Your task to perform on an android device: set the timer Image 0: 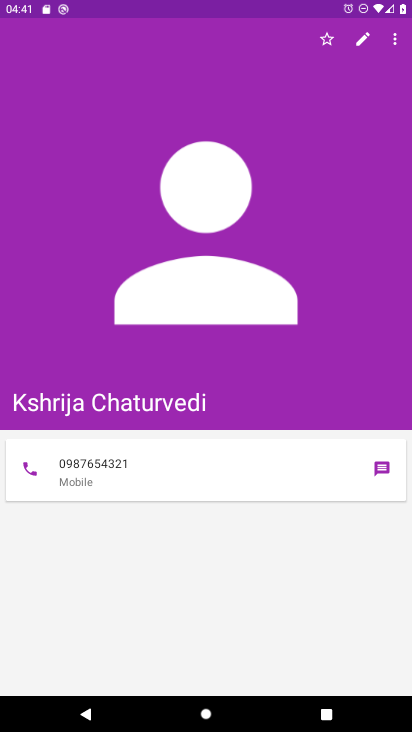
Step 0: press back button
Your task to perform on an android device: set the timer Image 1: 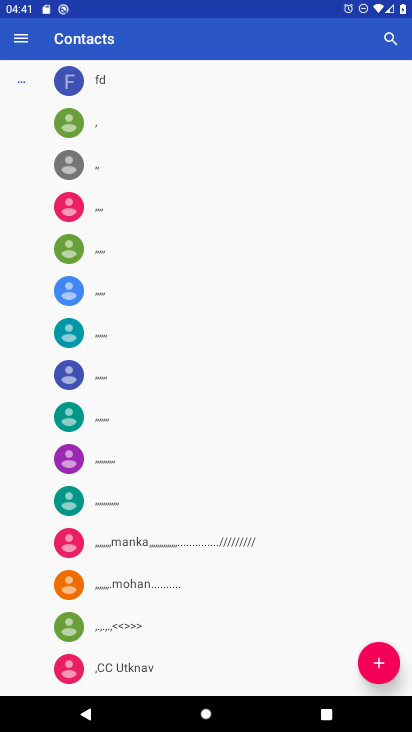
Step 1: press back button
Your task to perform on an android device: set the timer Image 2: 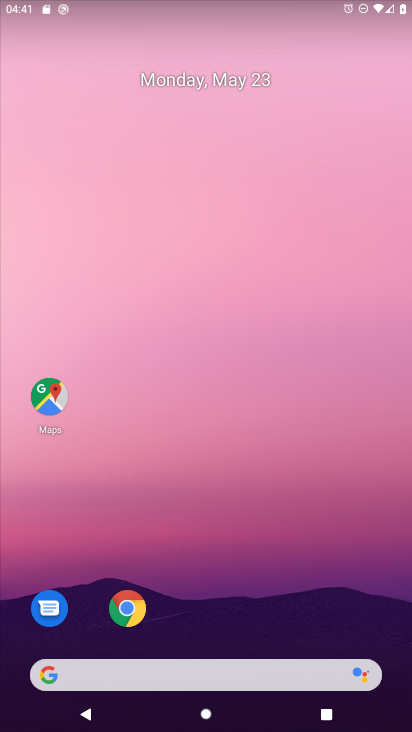
Step 2: drag from (206, 622) to (182, 226)
Your task to perform on an android device: set the timer Image 3: 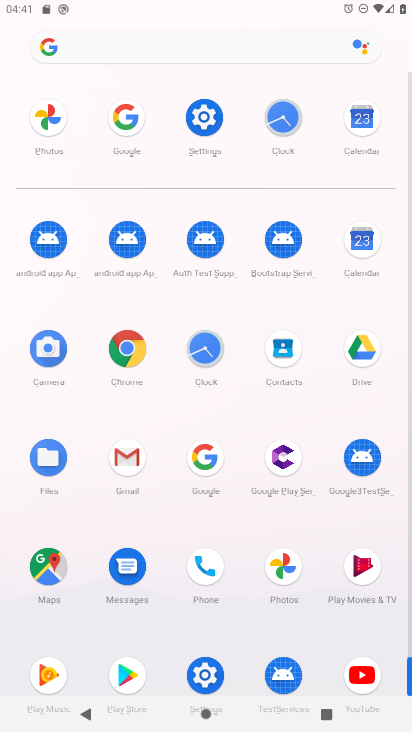
Step 3: click (279, 119)
Your task to perform on an android device: set the timer Image 4: 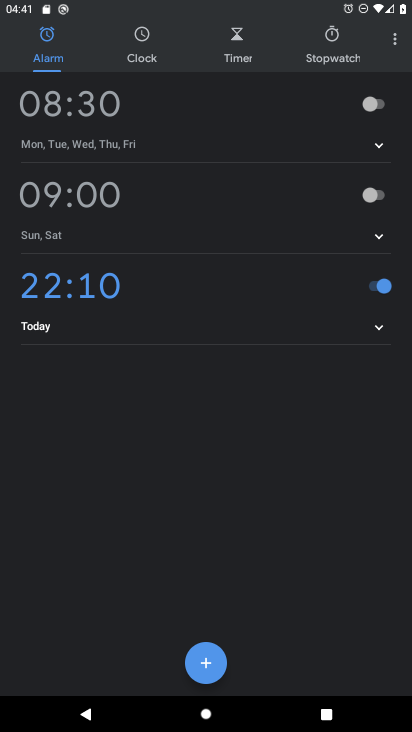
Step 4: click (238, 46)
Your task to perform on an android device: set the timer Image 5: 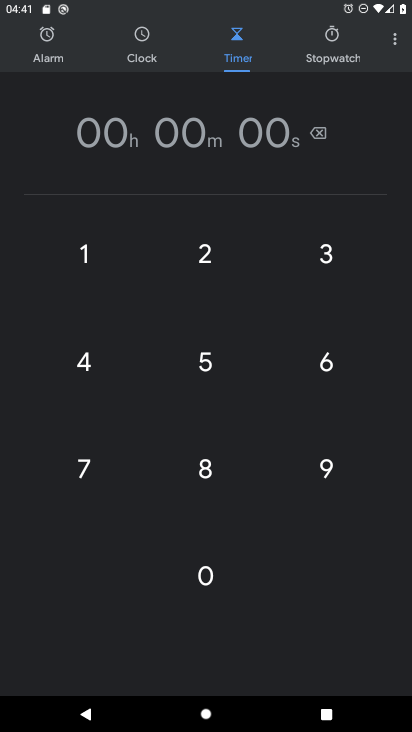
Step 5: type "123"
Your task to perform on an android device: set the timer Image 6: 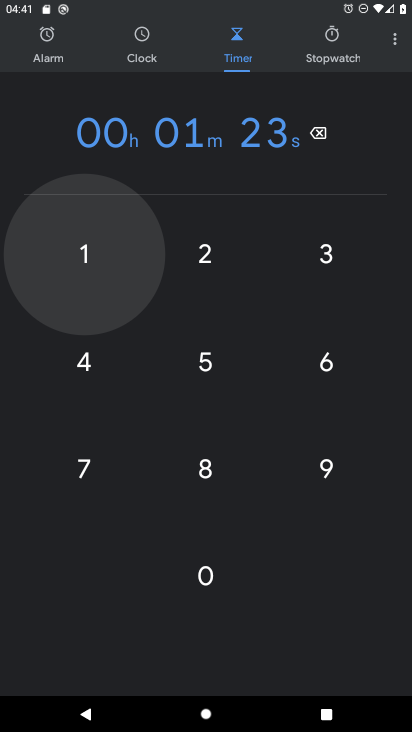
Step 6: type ""
Your task to perform on an android device: set the timer Image 7: 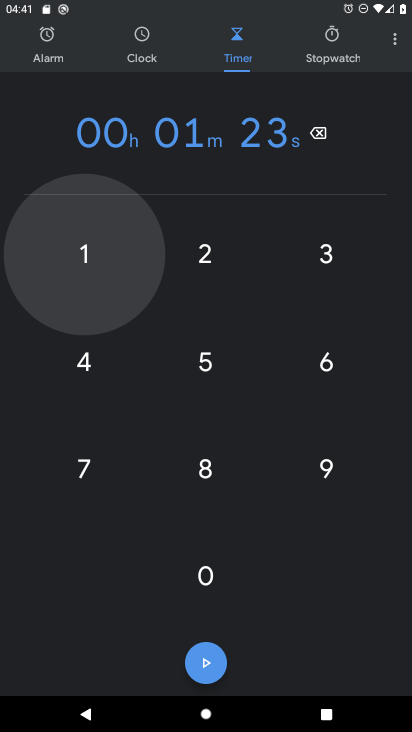
Step 7: click (217, 655)
Your task to perform on an android device: set the timer Image 8: 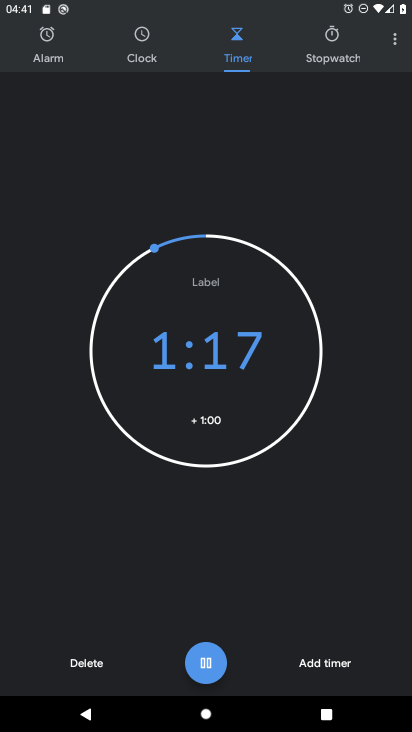
Step 8: click (203, 665)
Your task to perform on an android device: set the timer Image 9: 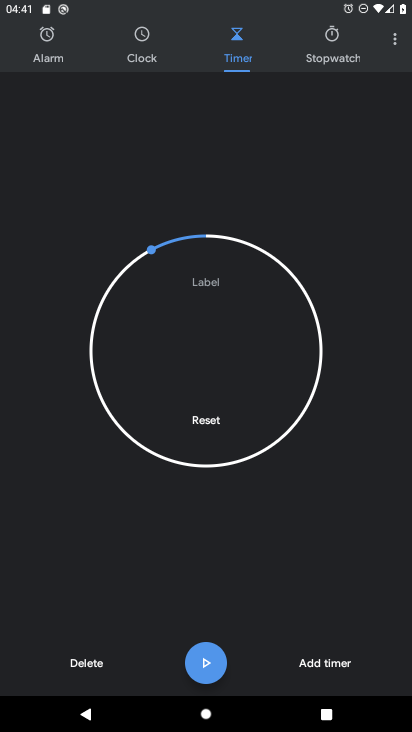
Step 9: task complete